Your task to perform on an android device: allow notifications from all sites in the chrome app Image 0: 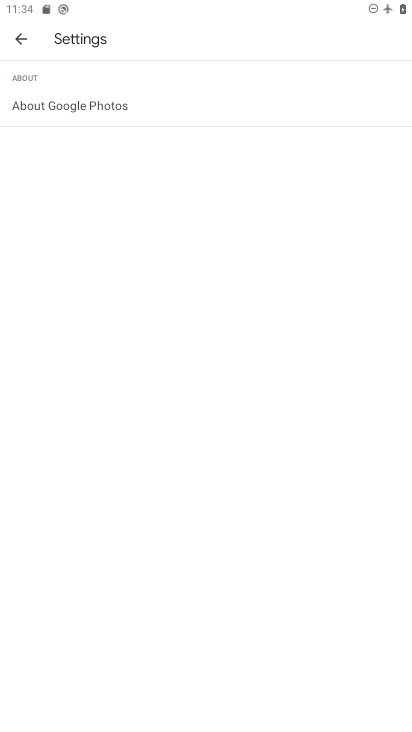
Step 0: press home button
Your task to perform on an android device: allow notifications from all sites in the chrome app Image 1: 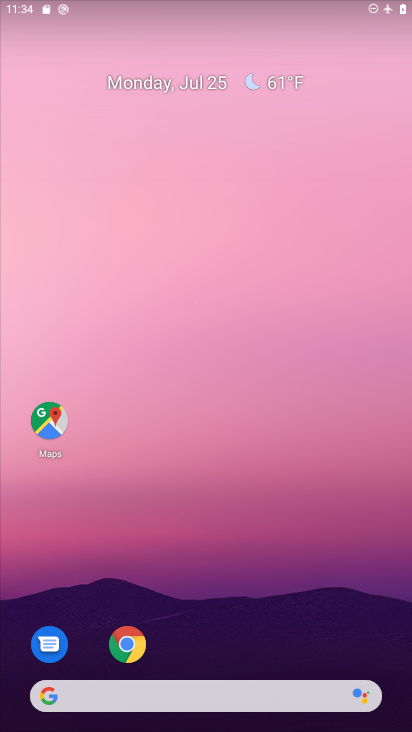
Step 1: drag from (225, 529) to (252, 237)
Your task to perform on an android device: allow notifications from all sites in the chrome app Image 2: 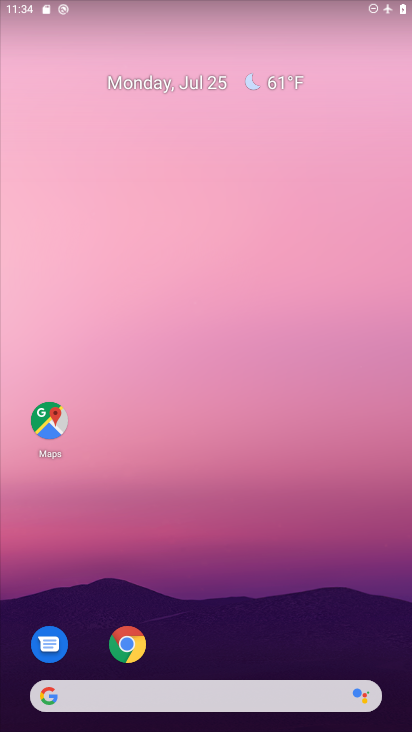
Step 2: drag from (152, 608) to (165, 195)
Your task to perform on an android device: allow notifications from all sites in the chrome app Image 3: 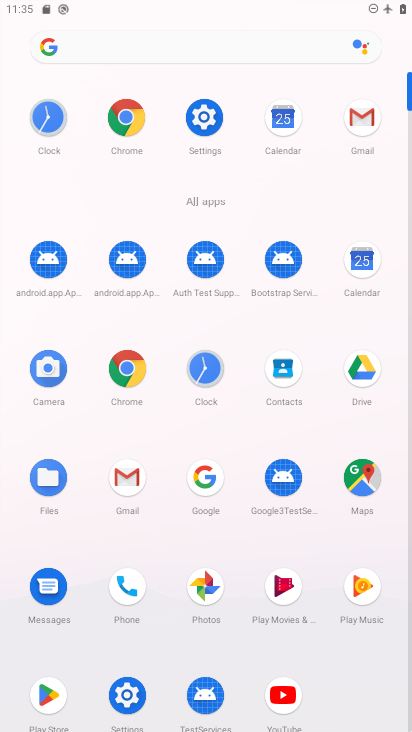
Step 3: click (125, 384)
Your task to perform on an android device: allow notifications from all sites in the chrome app Image 4: 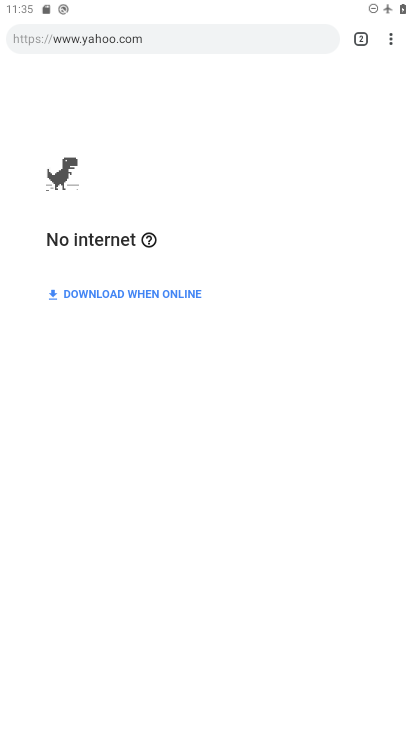
Step 4: click (396, 36)
Your task to perform on an android device: allow notifications from all sites in the chrome app Image 5: 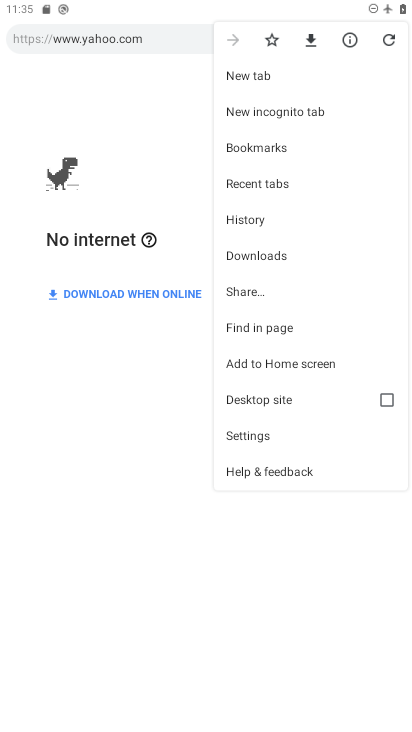
Step 5: click (257, 449)
Your task to perform on an android device: allow notifications from all sites in the chrome app Image 6: 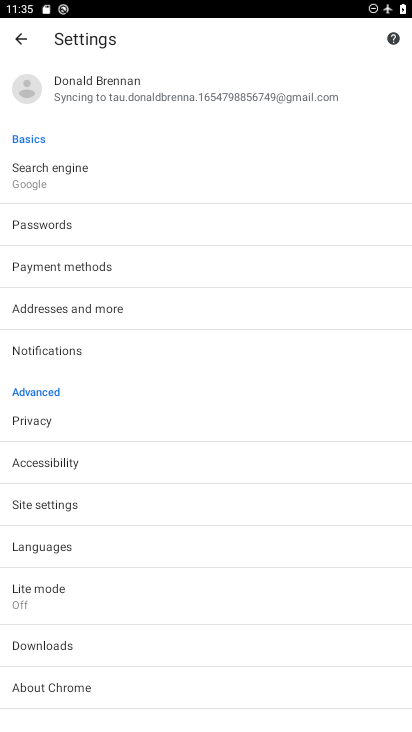
Step 6: click (102, 504)
Your task to perform on an android device: allow notifications from all sites in the chrome app Image 7: 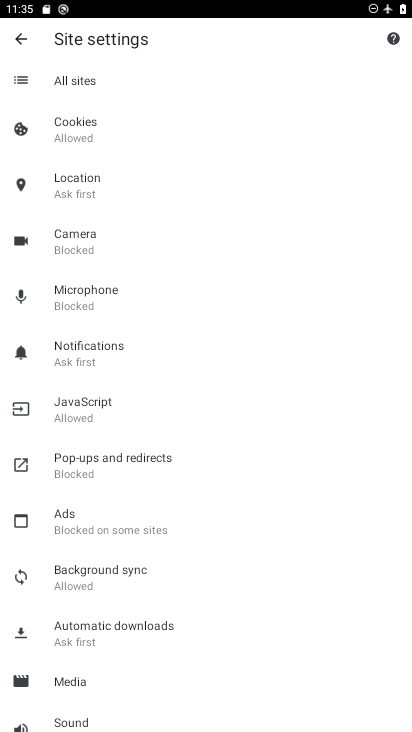
Step 7: click (96, 128)
Your task to perform on an android device: allow notifications from all sites in the chrome app Image 8: 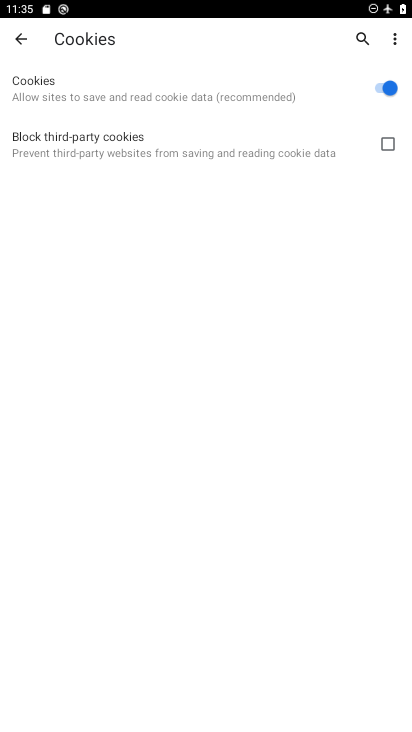
Step 8: click (25, 41)
Your task to perform on an android device: allow notifications from all sites in the chrome app Image 9: 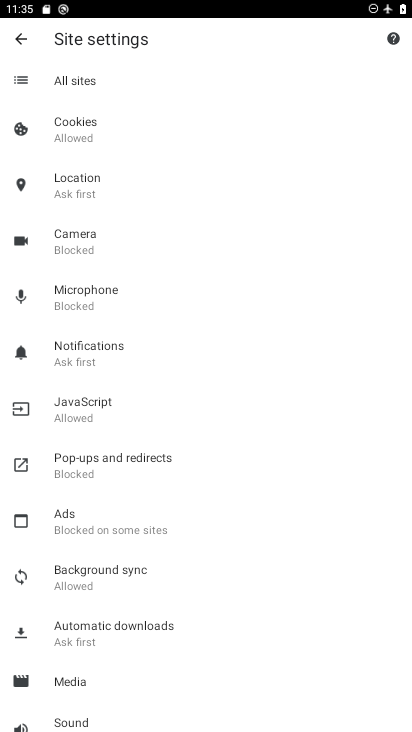
Step 9: click (100, 197)
Your task to perform on an android device: allow notifications from all sites in the chrome app Image 10: 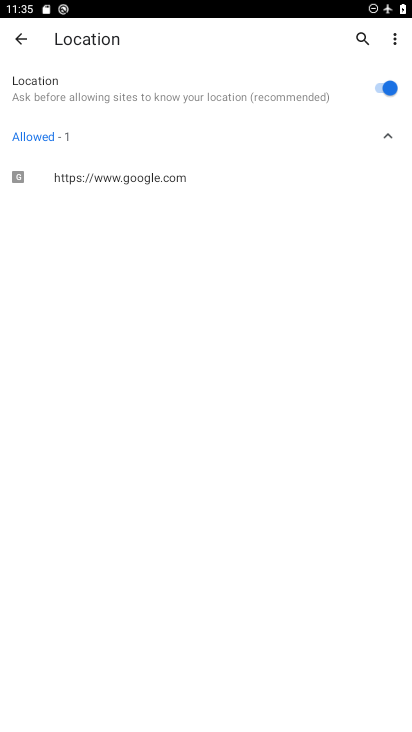
Step 10: click (18, 40)
Your task to perform on an android device: allow notifications from all sites in the chrome app Image 11: 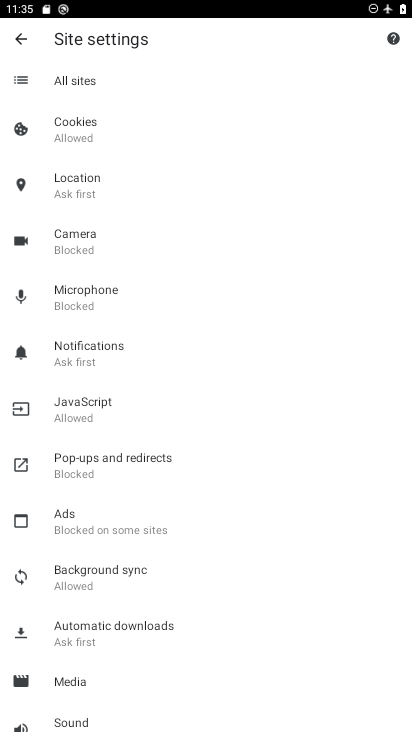
Step 11: click (78, 305)
Your task to perform on an android device: allow notifications from all sites in the chrome app Image 12: 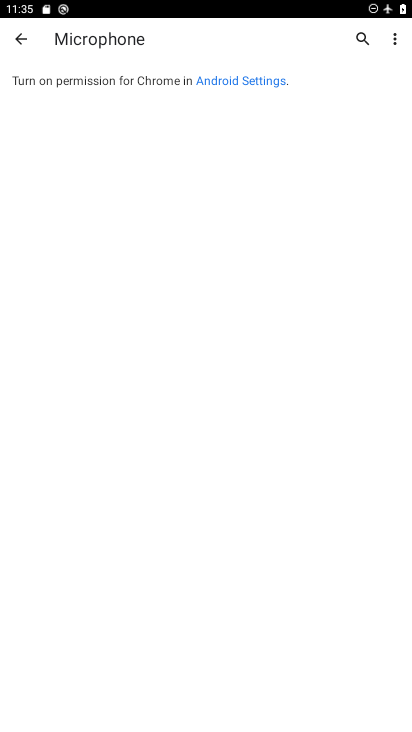
Step 12: click (32, 36)
Your task to perform on an android device: allow notifications from all sites in the chrome app Image 13: 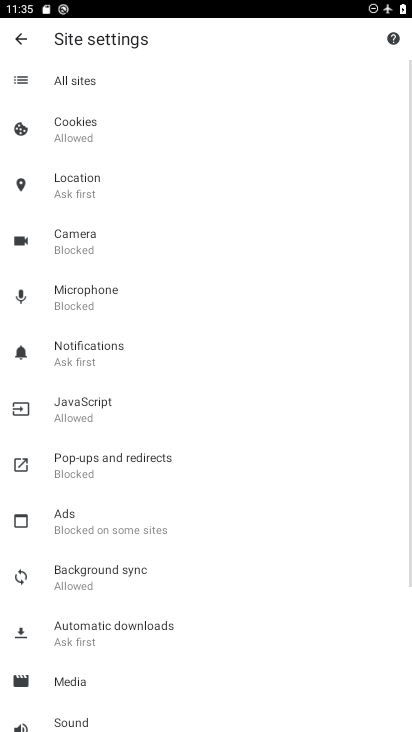
Step 13: click (97, 350)
Your task to perform on an android device: allow notifications from all sites in the chrome app Image 14: 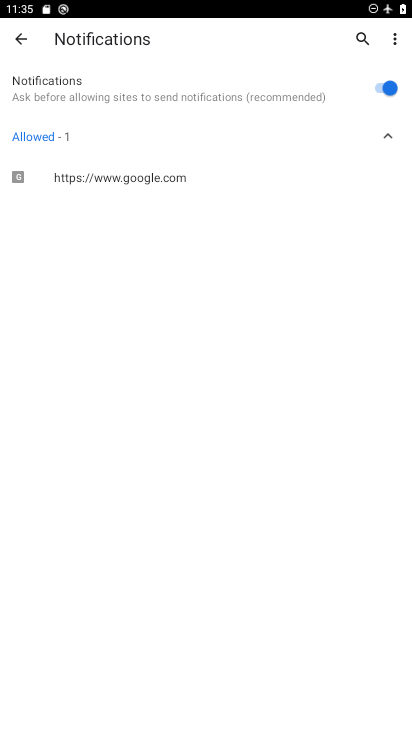
Step 14: click (33, 36)
Your task to perform on an android device: allow notifications from all sites in the chrome app Image 15: 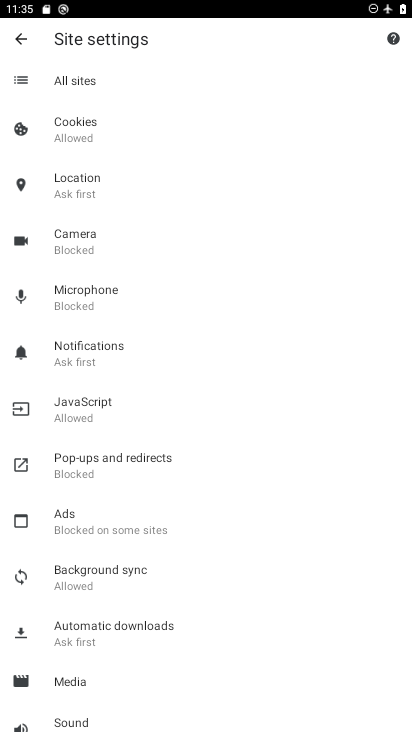
Step 15: click (101, 397)
Your task to perform on an android device: allow notifications from all sites in the chrome app Image 16: 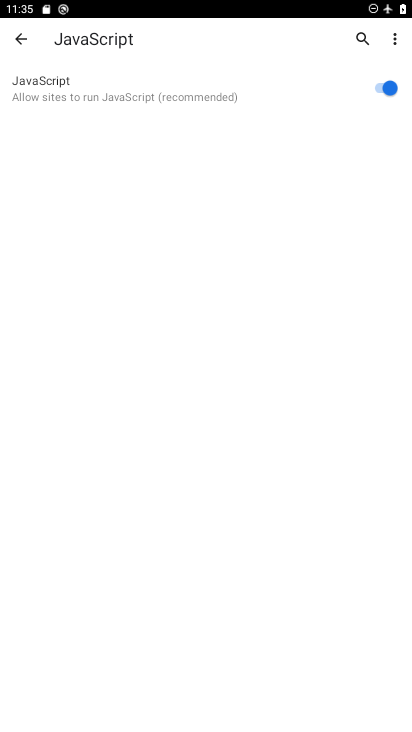
Step 16: click (14, 40)
Your task to perform on an android device: allow notifications from all sites in the chrome app Image 17: 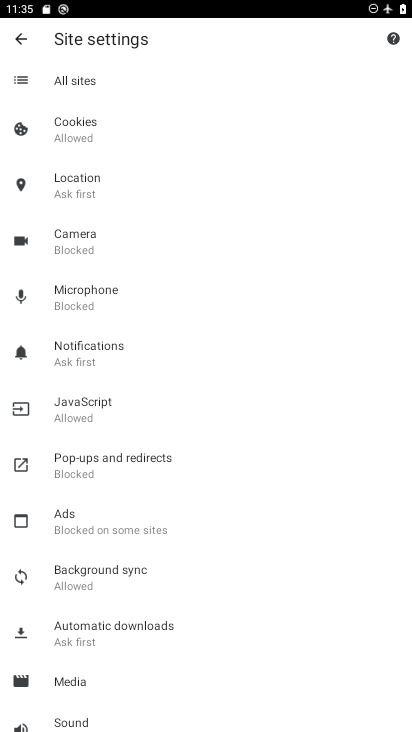
Step 17: task complete